Your task to perform on an android device: change notifications settings Image 0: 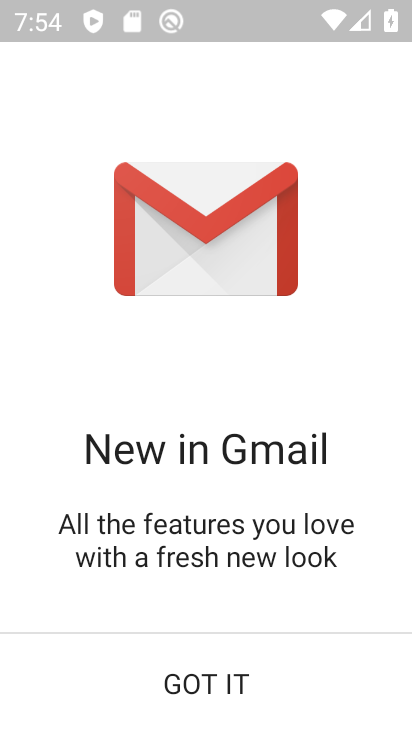
Step 0: press back button
Your task to perform on an android device: change notifications settings Image 1: 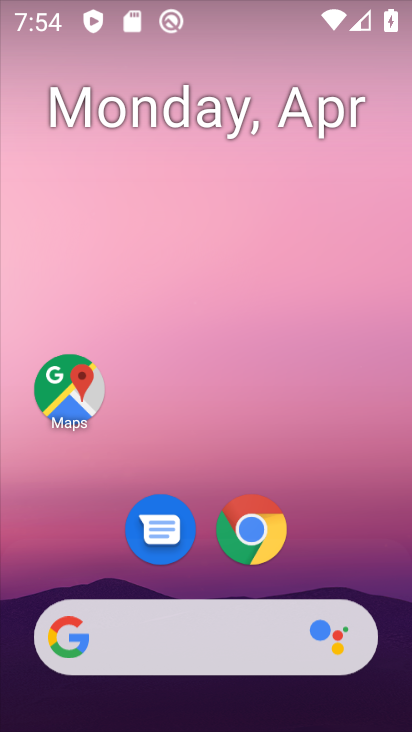
Step 1: drag from (225, 534) to (300, 37)
Your task to perform on an android device: change notifications settings Image 2: 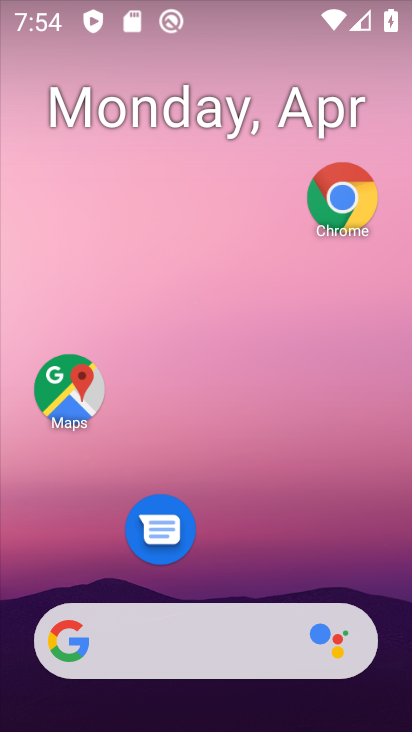
Step 2: drag from (272, 533) to (271, 37)
Your task to perform on an android device: change notifications settings Image 3: 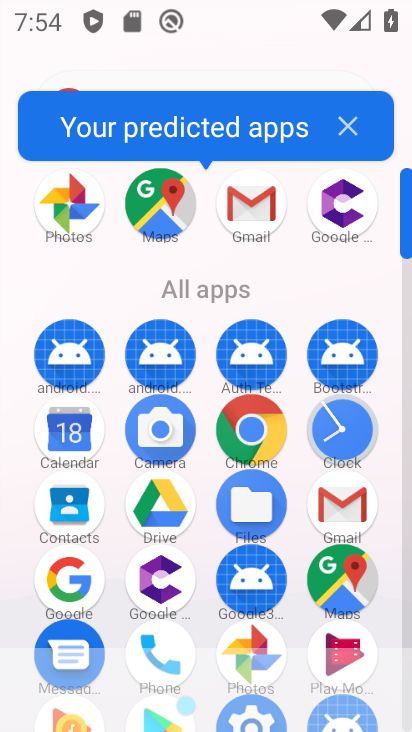
Step 3: drag from (219, 521) to (284, 97)
Your task to perform on an android device: change notifications settings Image 4: 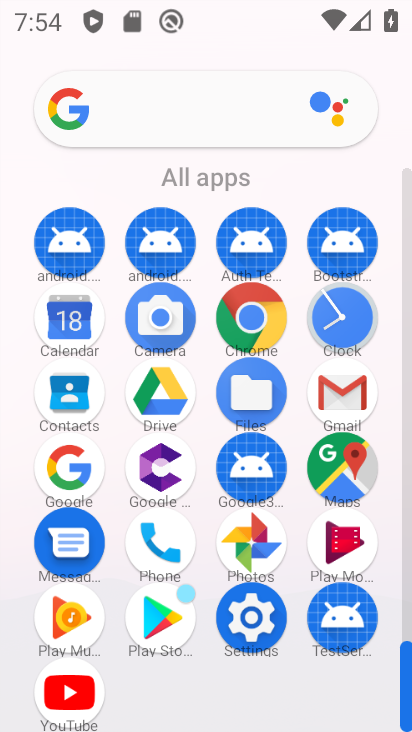
Step 4: click (252, 607)
Your task to perform on an android device: change notifications settings Image 5: 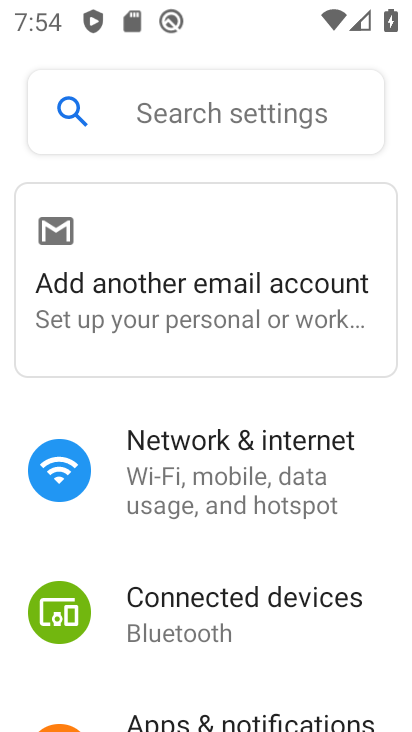
Step 5: click (240, 706)
Your task to perform on an android device: change notifications settings Image 6: 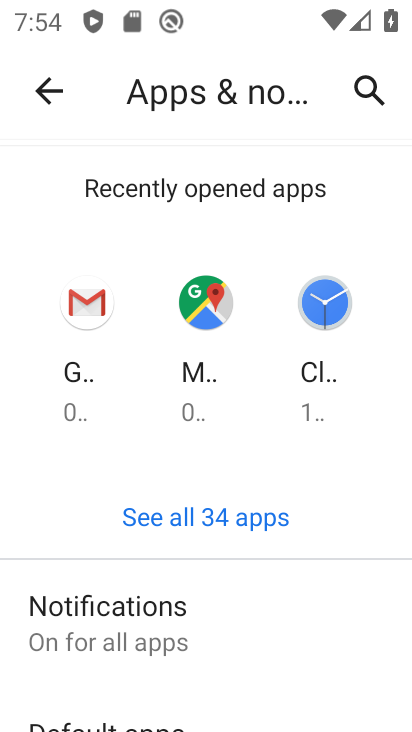
Step 6: drag from (170, 647) to (272, 199)
Your task to perform on an android device: change notifications settings Image 7: 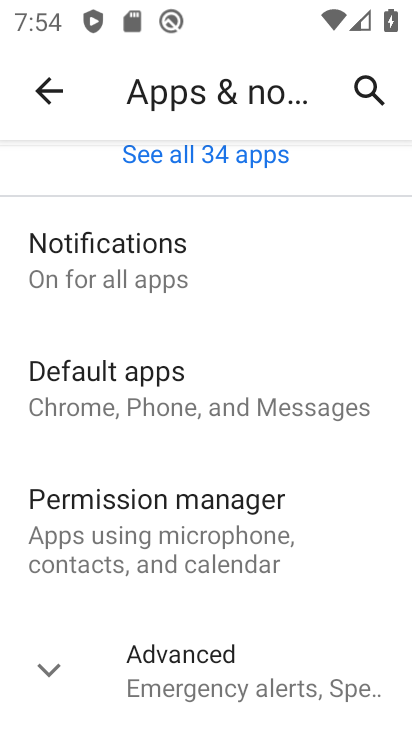
Step 7: click (177, 246)
Your task to perform on an android device: change notifications settings Image 8: 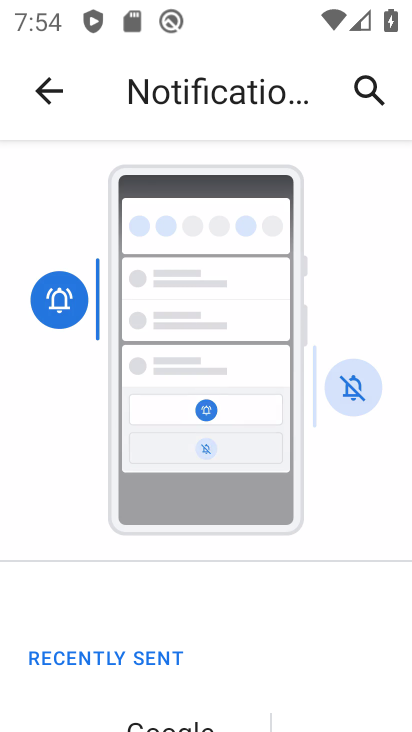
Step 8: drag from (161, 604) to (205, 164)
Your task to perform on an android device: change notifications settings Image 9: 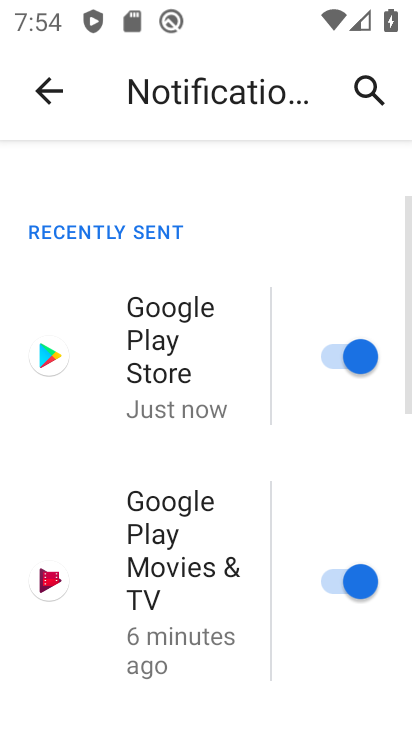
Step 9: drag from (183, 613) to (273, 113)
Your task to perform on an android device: change notifications settings Image 10: 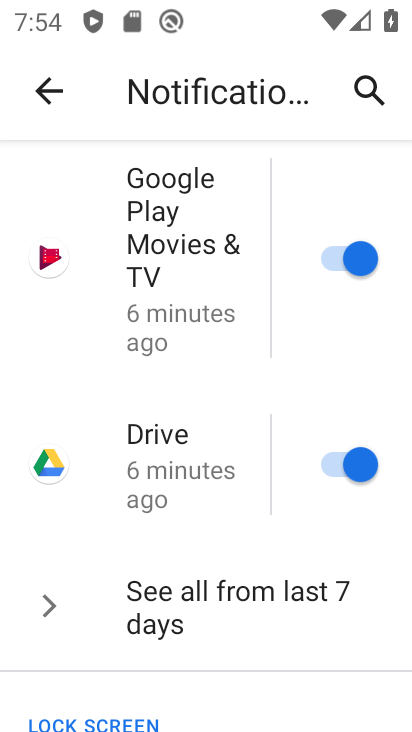
Step 10: drag from (196, 662) to (257, 78)
Your task to perform on an android device: change notifications settings Image 11: 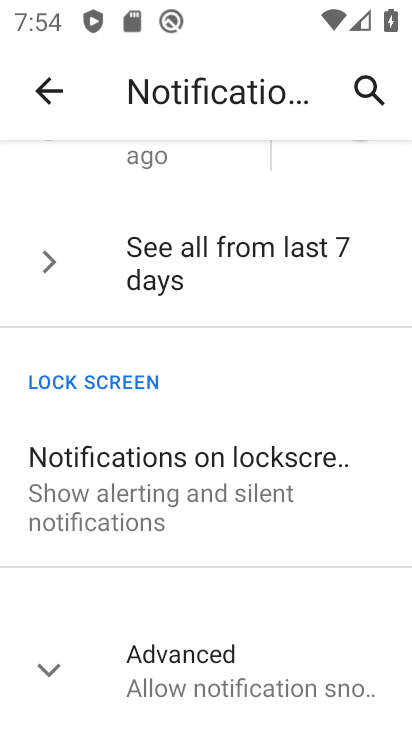
Step 11: click (204, 669)
Your task to perform on an android device: change notifications settings Image 12: 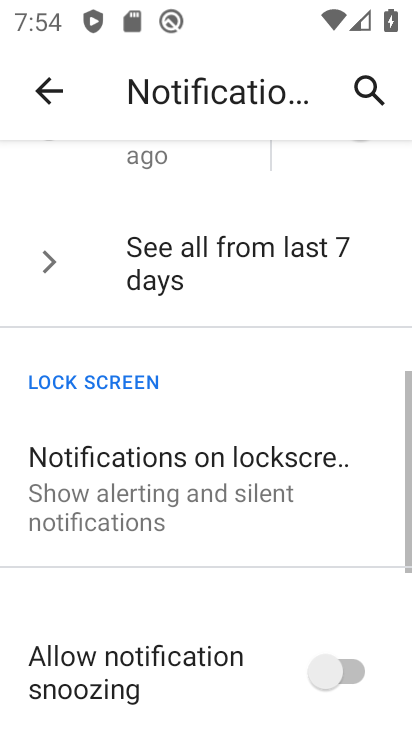
Step 12: click (204, 669)
Your task to perform on an android device: change notifications settings Image 13: 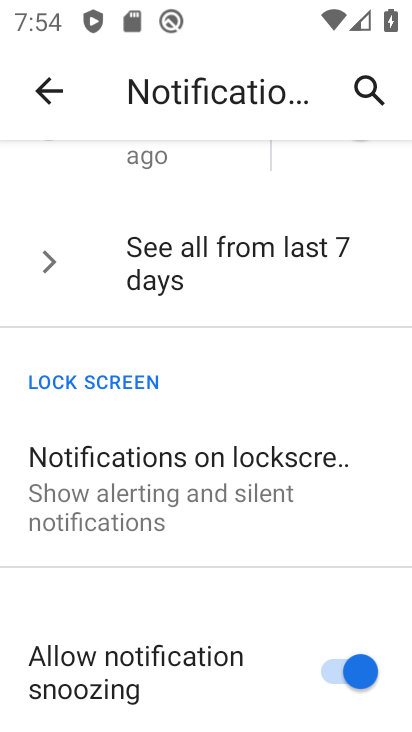
Step 13: task complete